Your task to perform on an android device: Go to location settings Image 0: 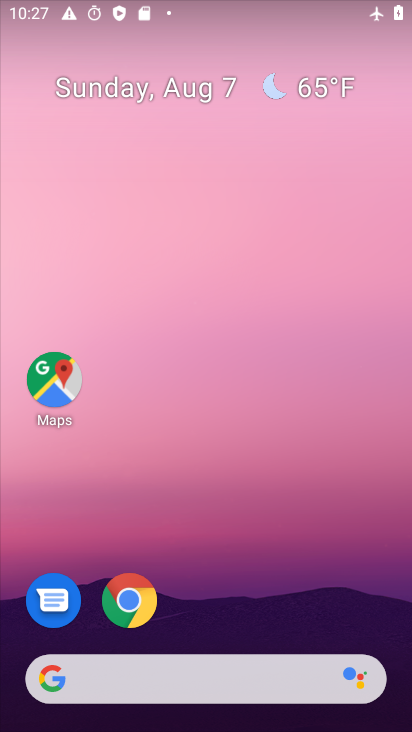
Step 0: drag from (249, 585) to (257, 188)
Your task to perform on an android device: Go to location settings Image 1: 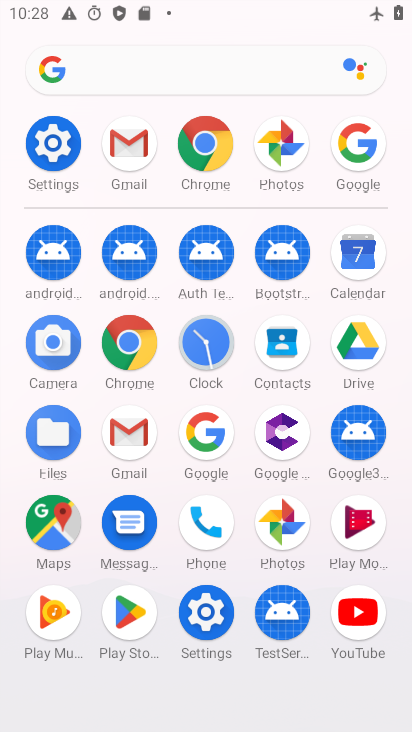
Step 1: click (59, 158)
Your task to perform on an android device: Go to location settings Image 2: 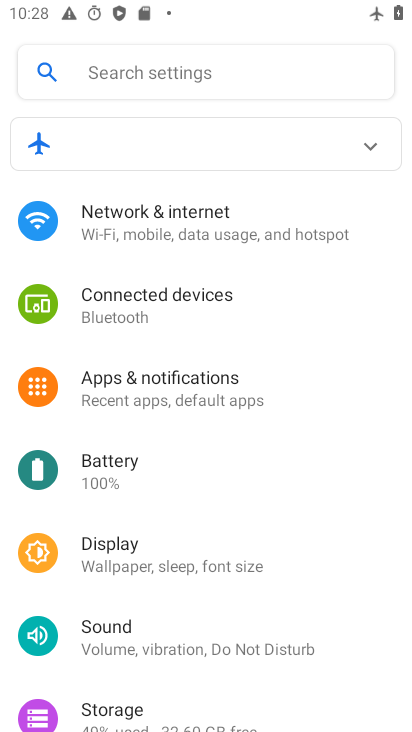
Step 2: drag from (153, 568) to (207, 107)
Your task to perform on an android device: Go to location settings Image 3: 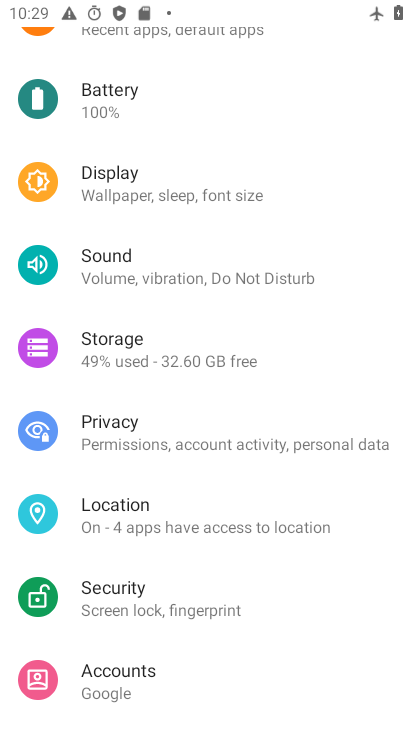
Step 3: click (125, 513)
Your task to perform on an android device: Go to location settings Image 4: 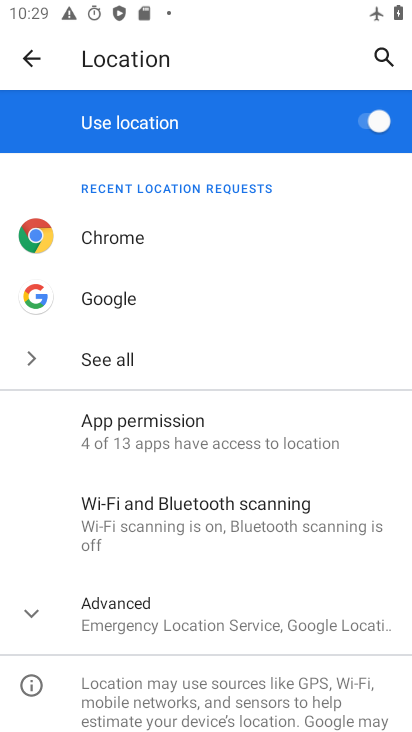
Step 4: task complete